Your task to perform on an android device: open app "Messages" Image 0: 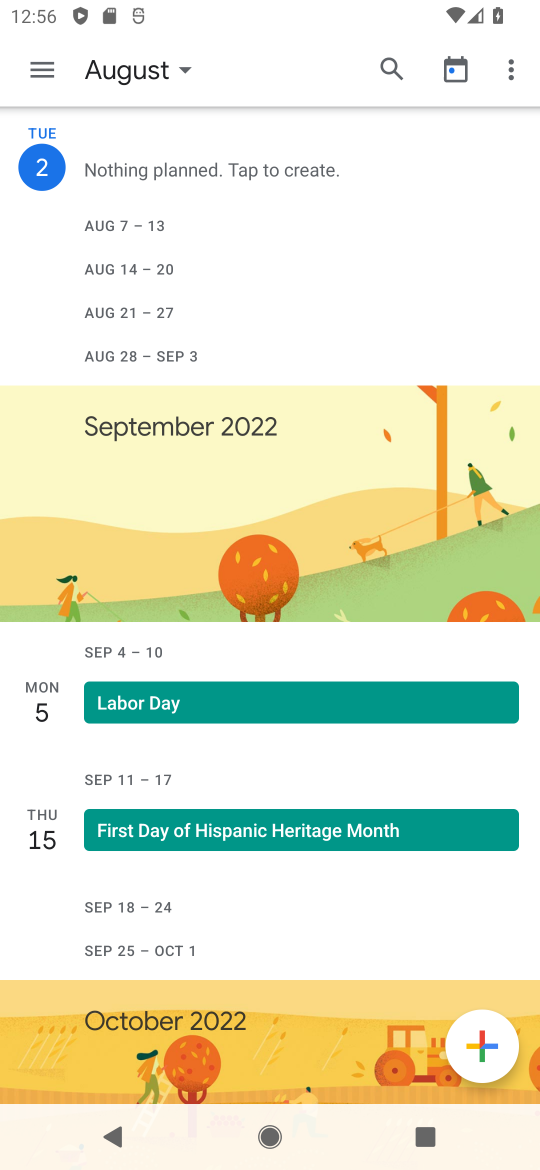
Step 0: press home button
Your task to perform on an android device: open app "Messages" Image 1: 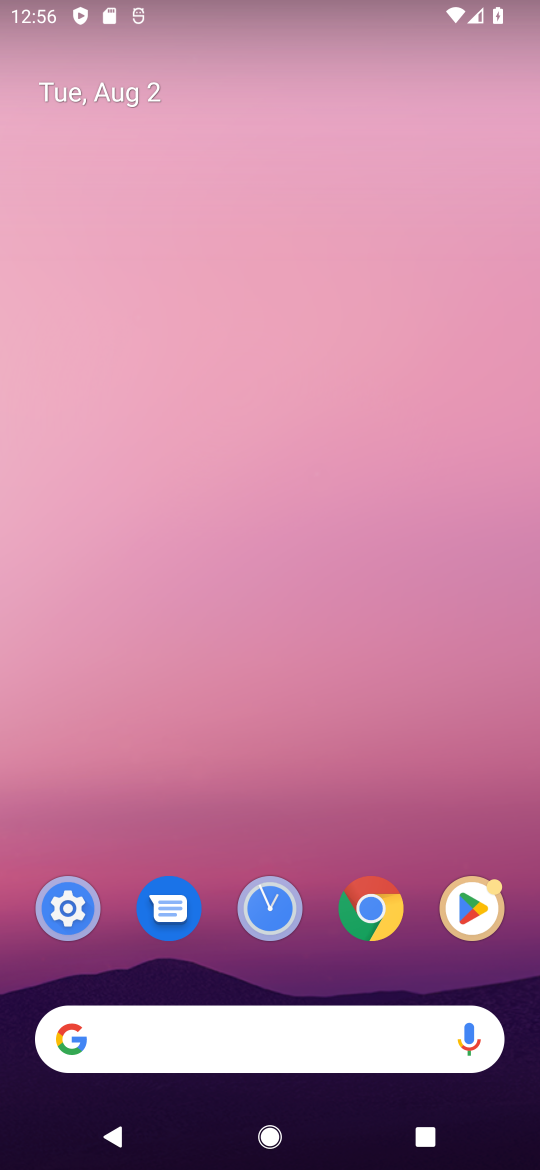
Step 1: click (173, 896)
Your task to perform on an android device: open app "Messages" Image 2: 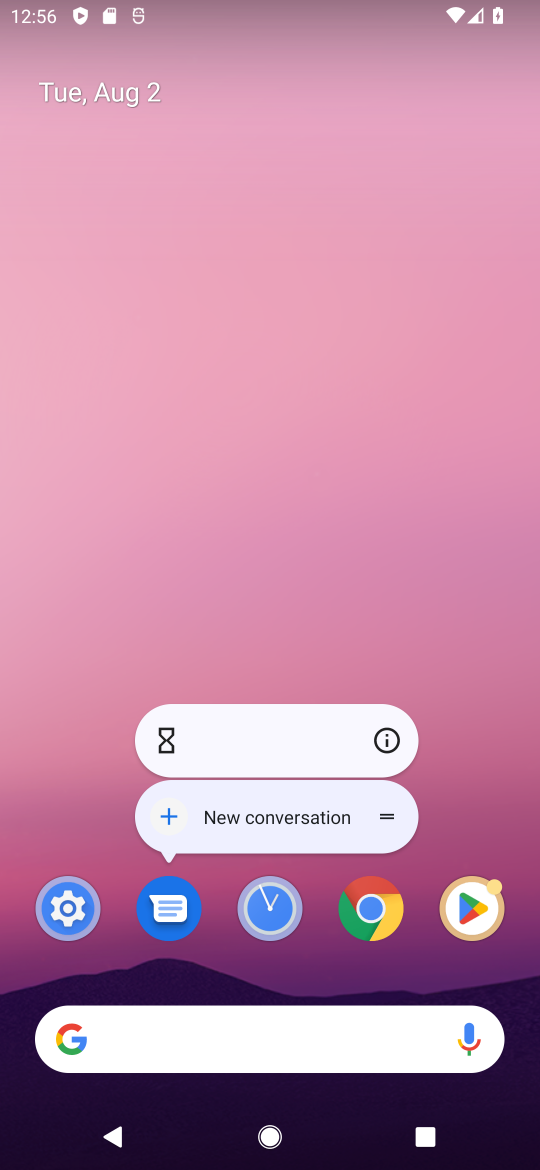
Step 2: click (173, 896)
Your task to perform on an android device: open app "Messages" Image 3: 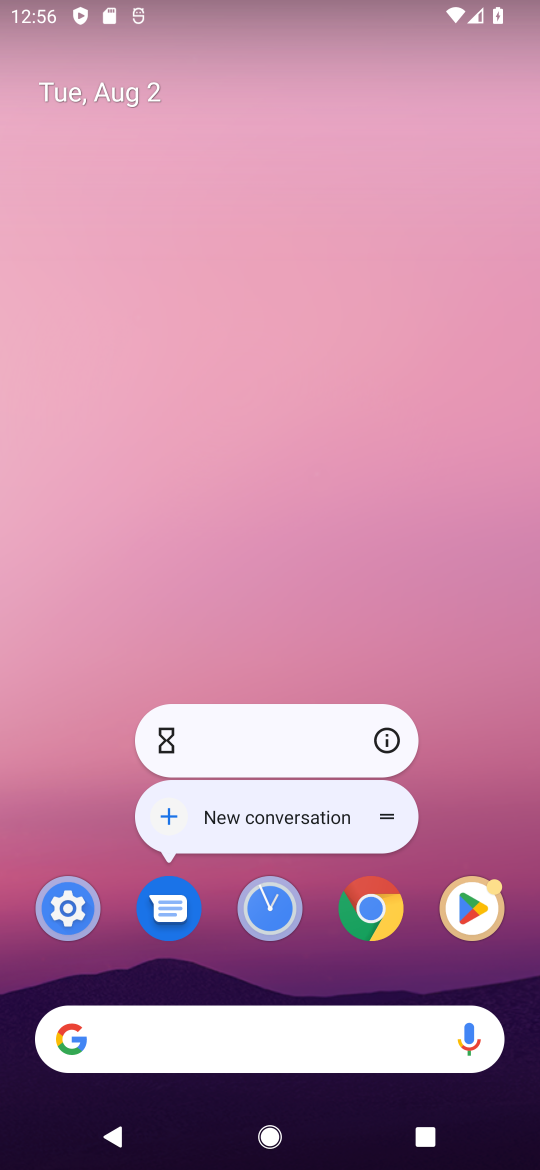
Step 3: click (173, 896)
Your task to perform on an android device: open app "Messages" Image 4: 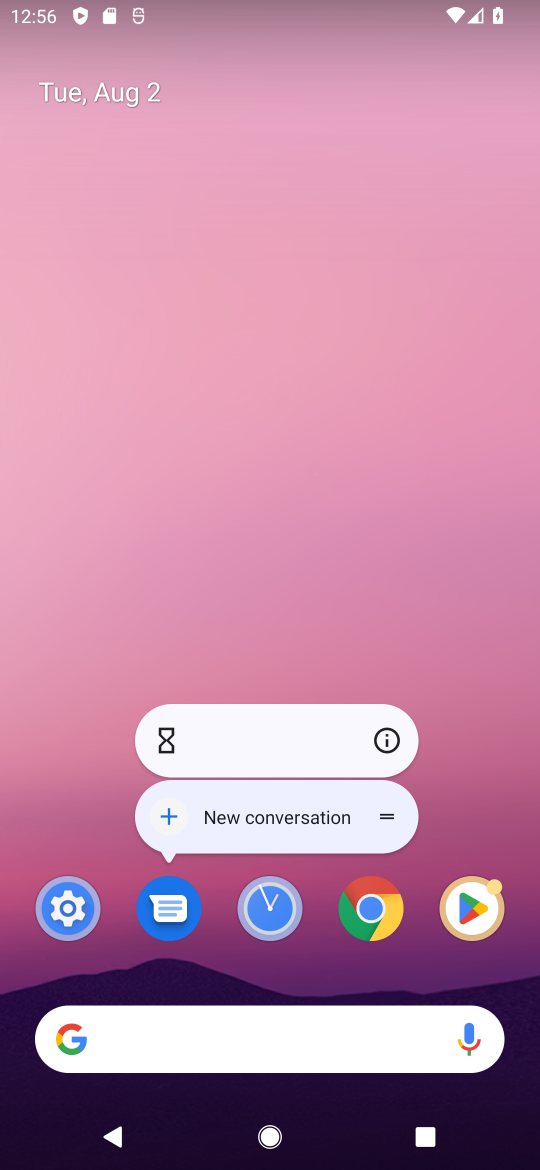
Step 4: click (155, 928)
Your task to perform on an android device: open app "Messages" Image 5: 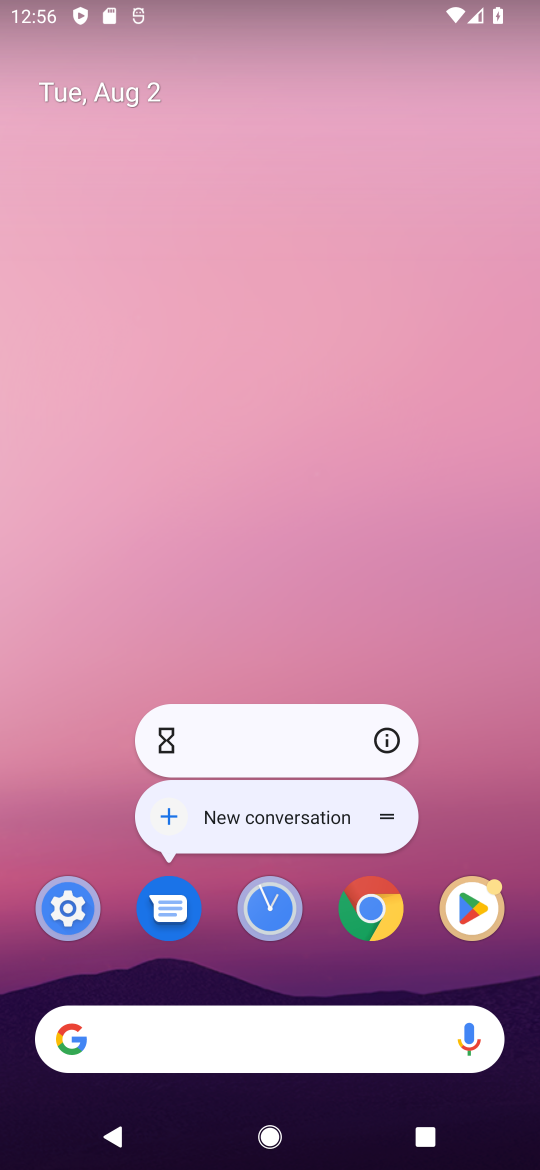
Step 5: drag from (212, 1022) to (256, 34)
Your task to perform on an android device: open app "Messages" Image 6: 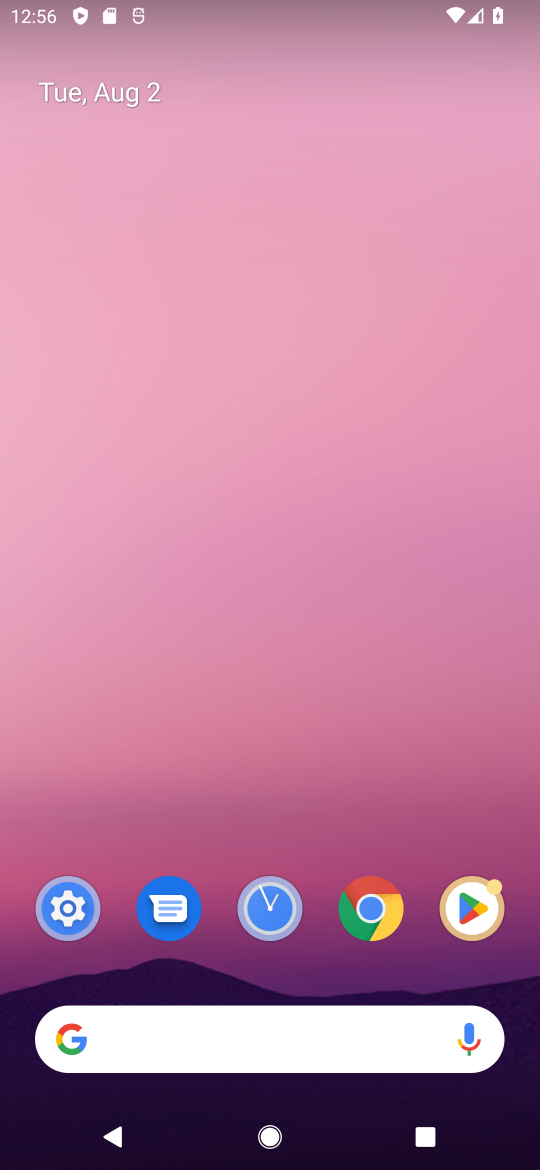
Step 6: drag from (204, 399) to (215, 35)
Your task to perform on an android device: open app "Messages" Image 7: 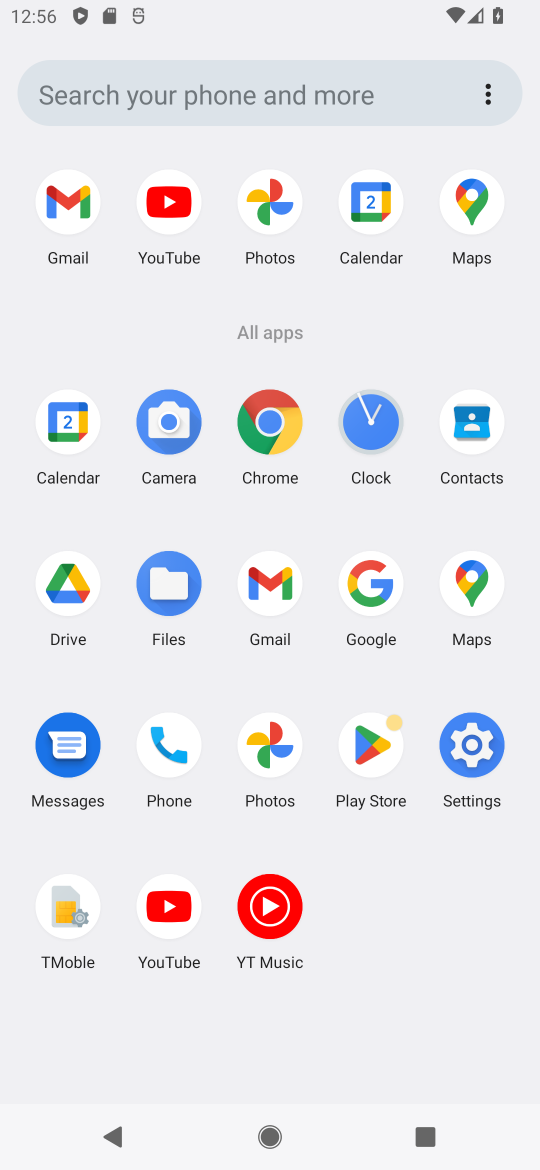
Step 7: click (98, 748)
Your task to perform on an android device: open app "Messages" Image 8: 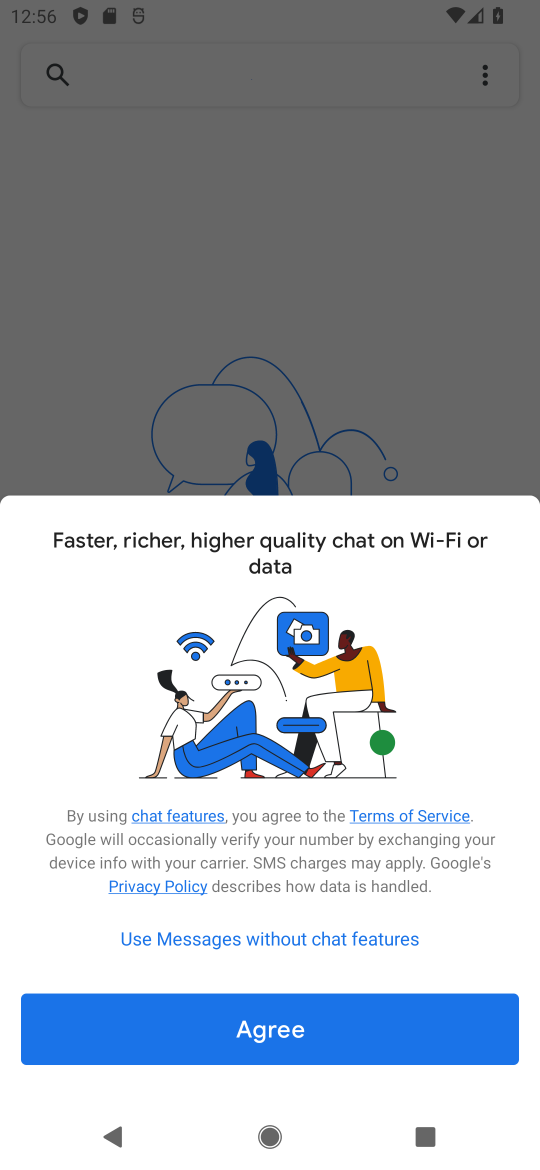
Step 8: task complete